Your task to perform on an android device: Open the calendar app, open the side menu, and click the "Day" option Image 0: 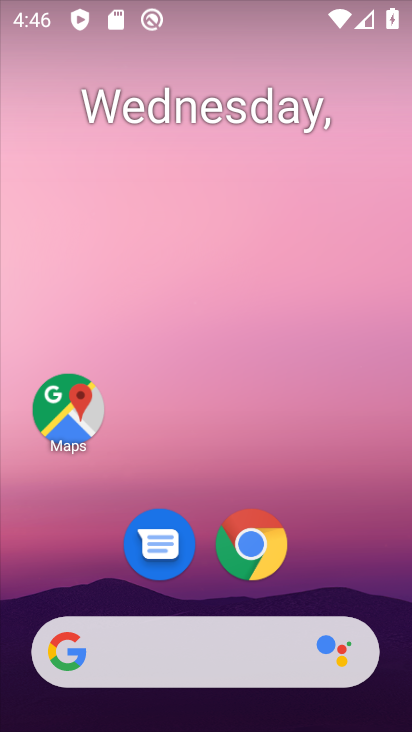
Step 0: drag from (265, 606) to (215, 41)
Your task to perform on an android device: Open the calendar app, open the side menu, and click the "Day" option Image 1: 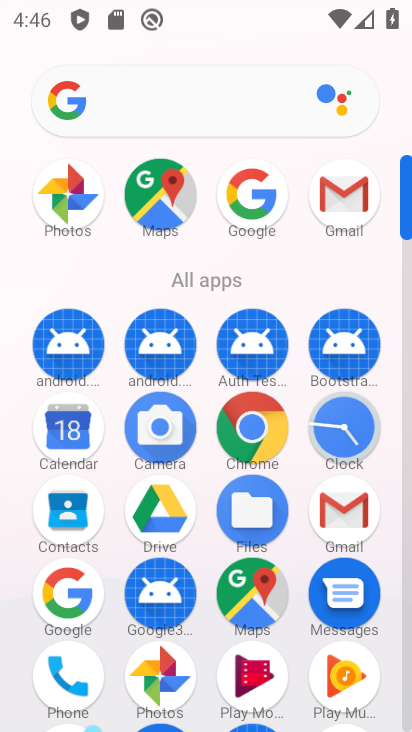
Step 1: click (62, 452)
Your task to perform on an android device: Open the calendar app, open the side menu, and click the "Day" option Image 2: 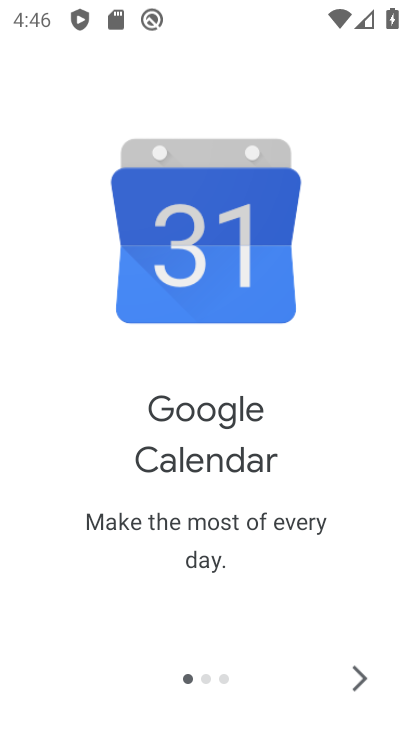
Step 2: click (355, 670)
Your task to perform on an android device: Open the calendar app, open the side menu, and click the "Day" option Image 3: 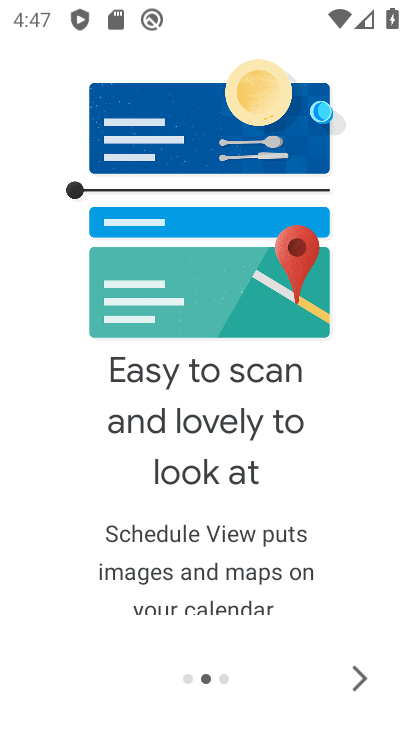
Step 3: click (353, 670)
Your task to perform on an android device: Open the calendar app, open the side menu, and click the "Day" option Image 4: 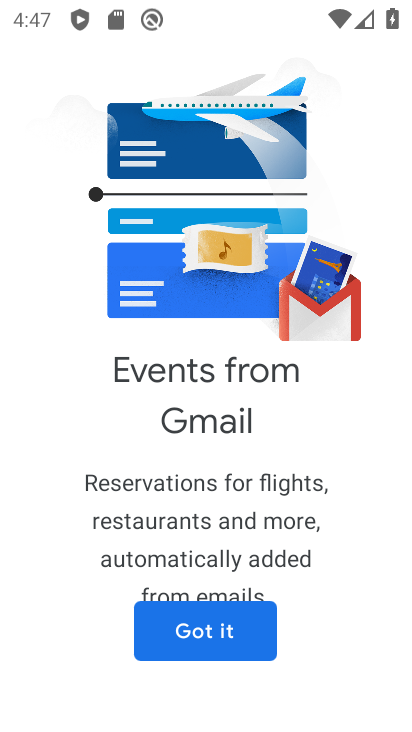
Step 4: click (210, 620)
Your task to perform on an android device: Open the calendar app, open the side menu, and click the "Day" option Image 5: 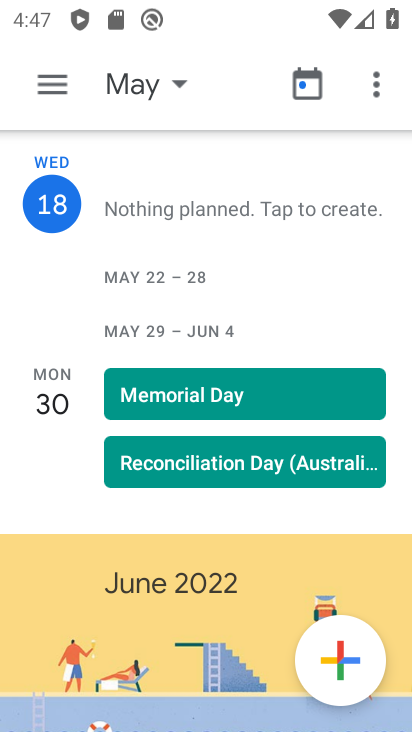
Step 5: click (51, 85)
Your task to perform on an android device: Open the calendar app, open the side menu, and click the "Day" option Image 6: 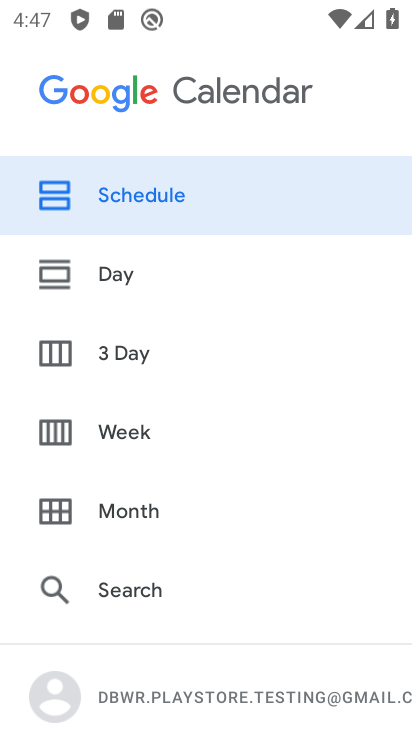
Step 6: click (85, 283)
Your task to perform on an android device: Open the calendar app, open the side menu, and click the "Day" option Image 7: 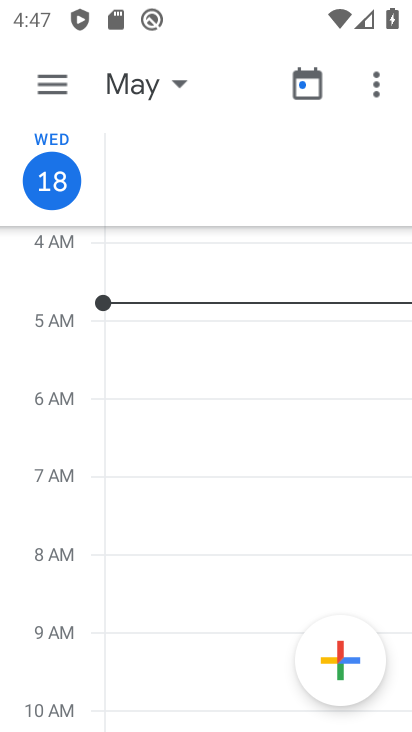
Step 7: task complete